Your task to perform on an android device: read, delete, or share a saved page in the chrome app Image 0: 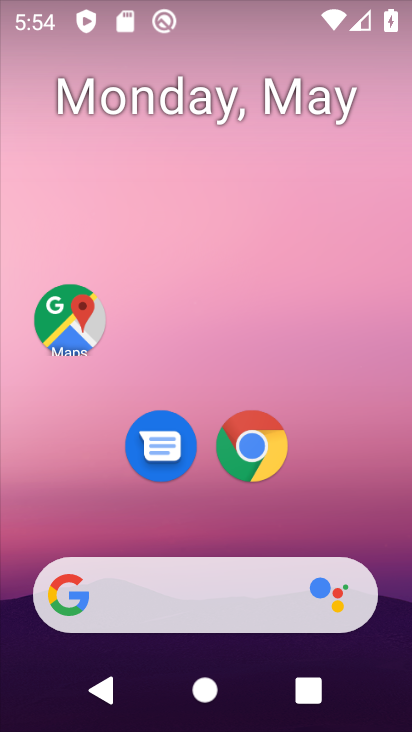
Step 0: click (262, 444)
Your task to perform on an android device: read, delete, or share a saved page in the chrome app Image 1: 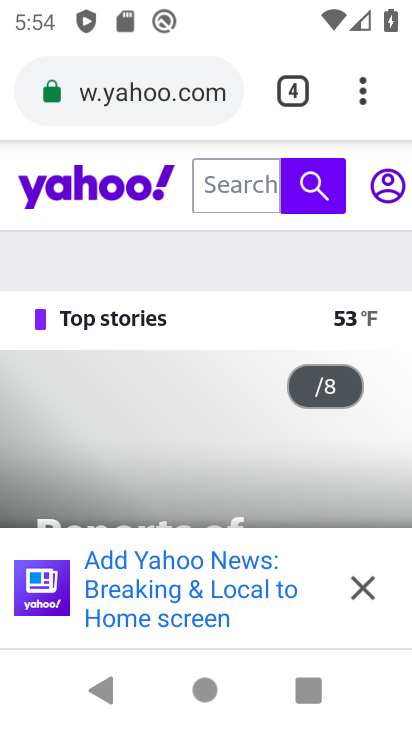
Step 1: click (360, 98)
Your task to perform on an android device: read, delete, or share a saved page in the chrome app Image 2: 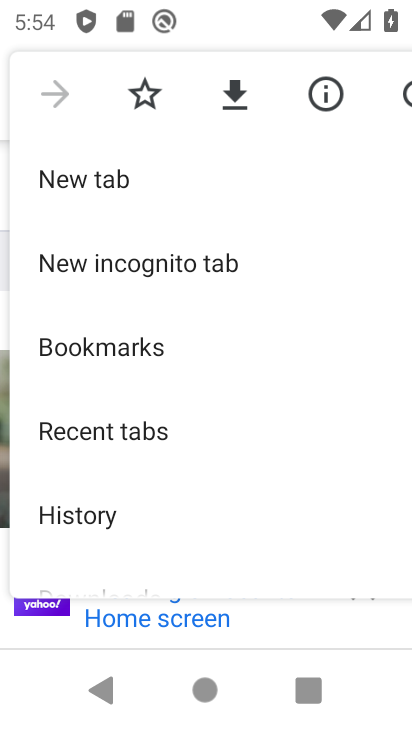
Step 2: drag from (149, 496) to (109, 274)
Your task to perform on an android device: read, delete, or share a saved page in the chrome app Image 3: 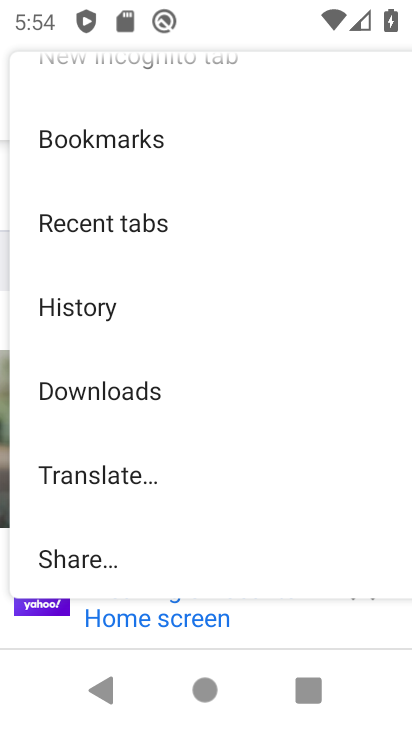
Step 3: click (106, 393)
Your task to perform on an android device: read, delete, or share a saved page in the chrome app Image 4: 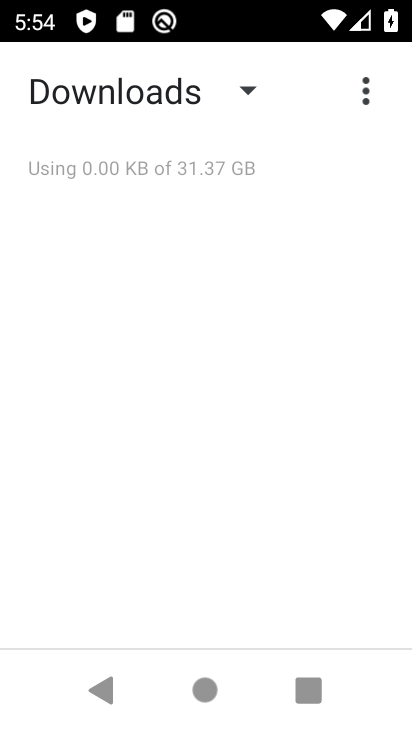
Step 4: task complete